Your task to perform on an android device: Open Google Chrome and click the shortcut for Amazon.com Image 0: 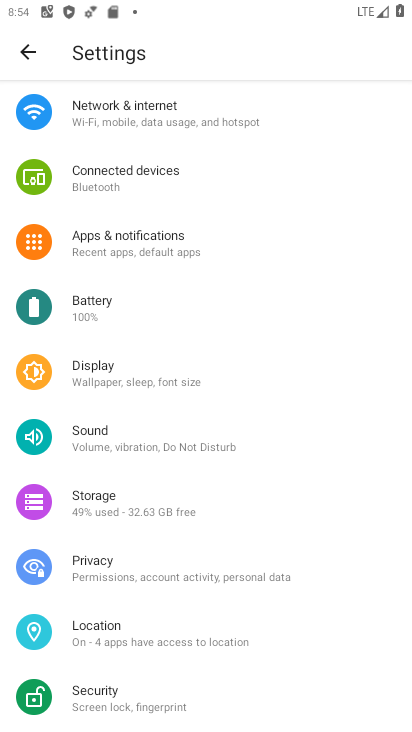
Step 0: press home button
Your task to perform on an android device: Open Google Chrome and click the shortcut for Amazon.com Image 1: 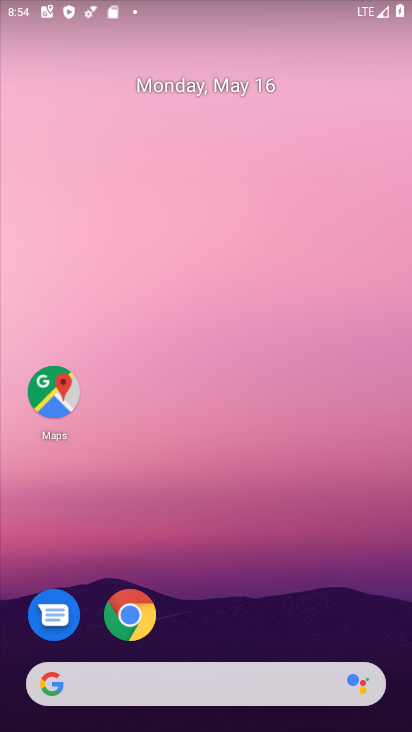
Step 1: drag from (237, 675) to (283, 160)
Your task to perform on an android device: Open Google Chrome and click the shortcut for Amazon.com Image 2: 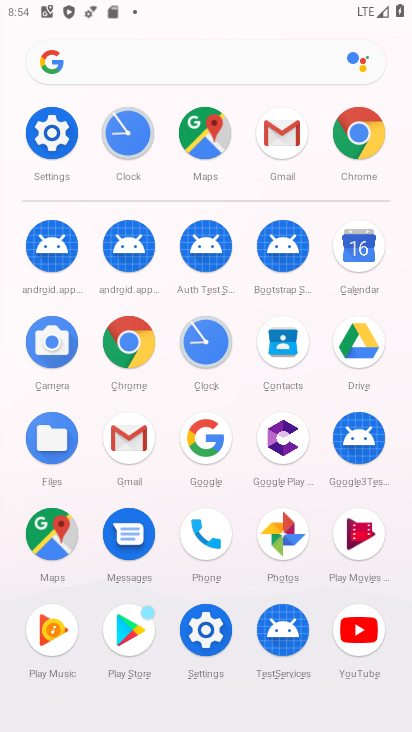
Step 2: click (127, 359)
Your task to perform on an android device: Open Google Chrome and click the shortcut for Amazon.com Image 3: 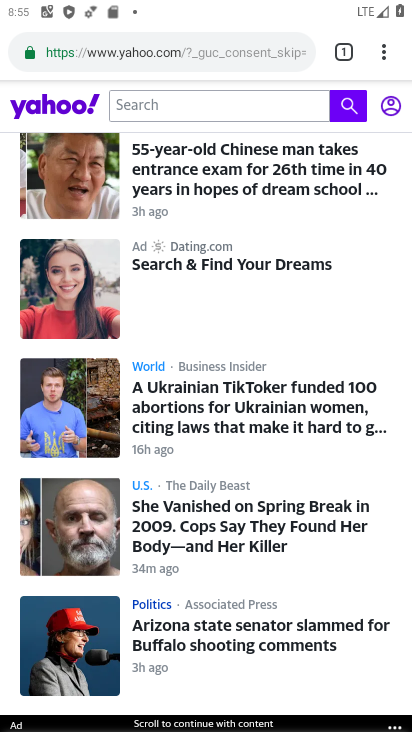
Step 3: drag from (264, 54) to (294, 225)
Your task to perform on an android device: Open Google Chrome and click the shortcut for Amazon.com Image 4: 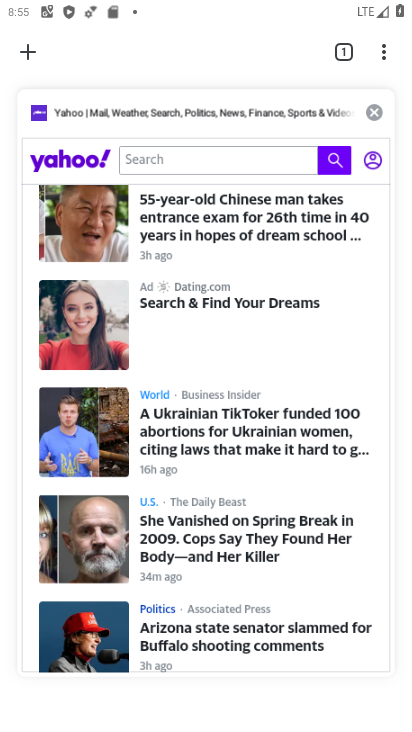
Step 4: click (29, 53)
Your task to perform on an android device: Open Google Chrome and click the shortcut for Amazon.com Image 5: 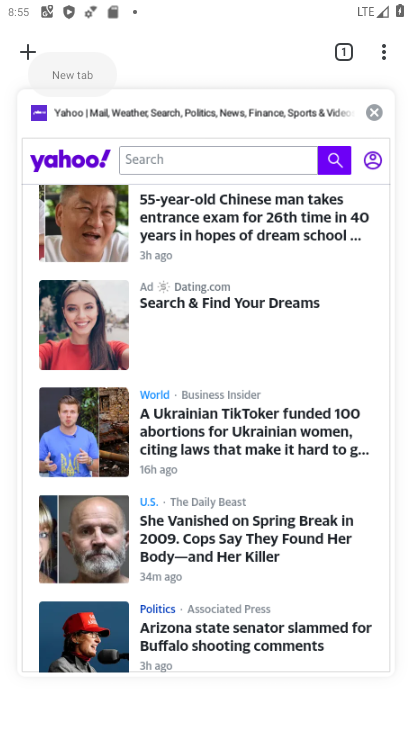
Step 5: click (33, 57)
Your task to perform on an android device: Open Google Chrome and click the shortcut for Amazon.com Image 6: 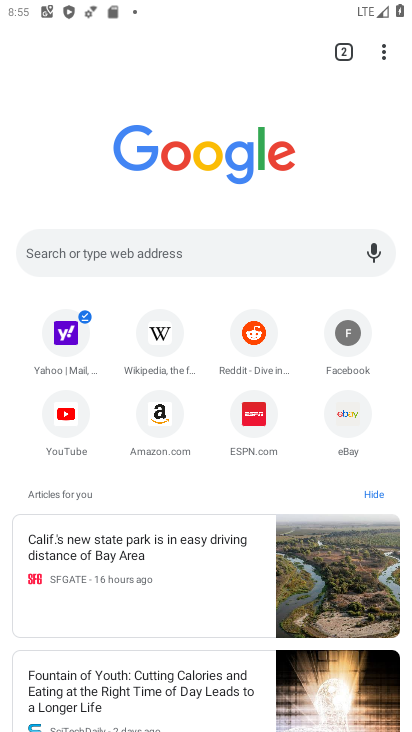
Step 6: click (166, 407)
Your task to perform on an android device: Open Google Chrome and click the shortcut for Amazon.com Image 7: 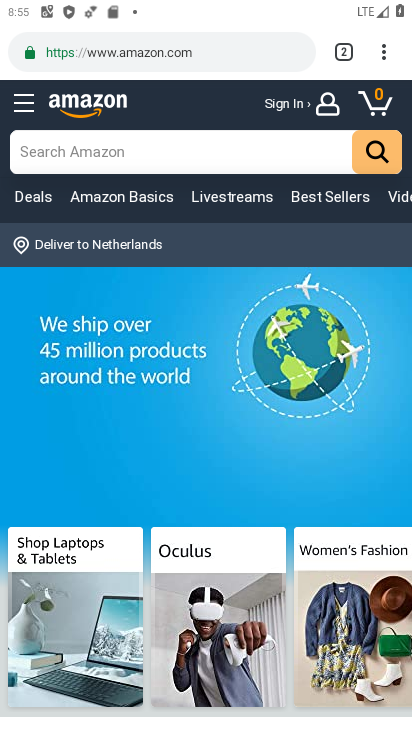
Step 7: task complete